Your task to perform on an android device: Add usb-a to usb-b to the cart on amazon Image 0: 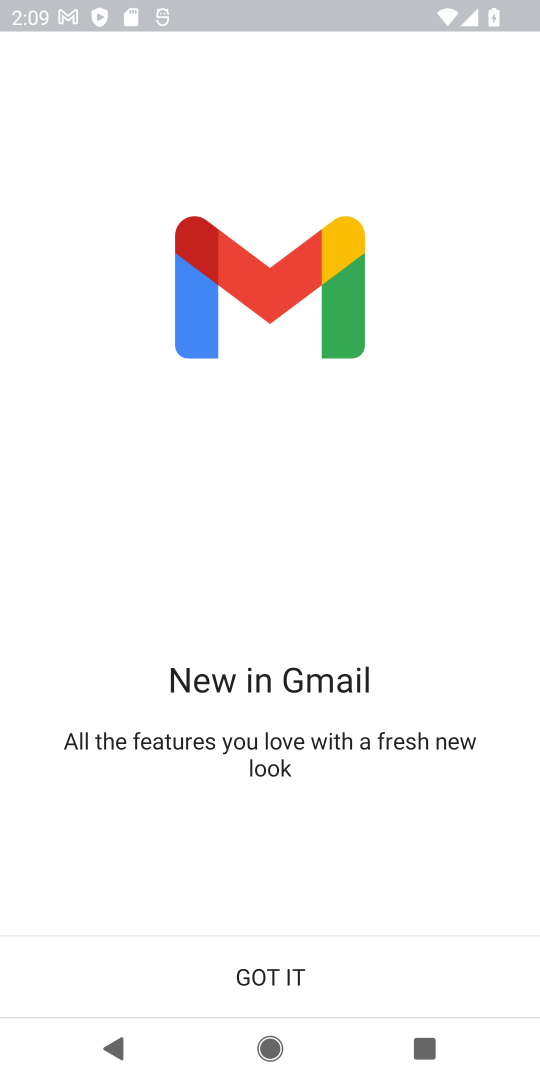
Step 0: press home button
Your task to perform on an android device: Add usb-a to usb-b to the cart on amazon Image 1: 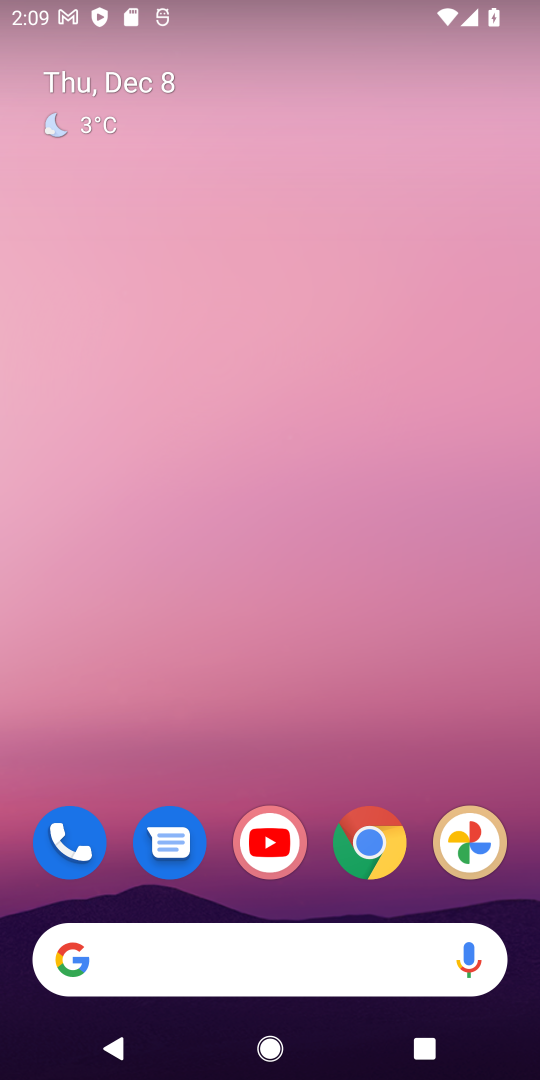
Step 1: drag from (230, 859) to (207, 484)
Your task to perform on an android device: Add usb-a to usb-b to the cart on amazon Image 2: 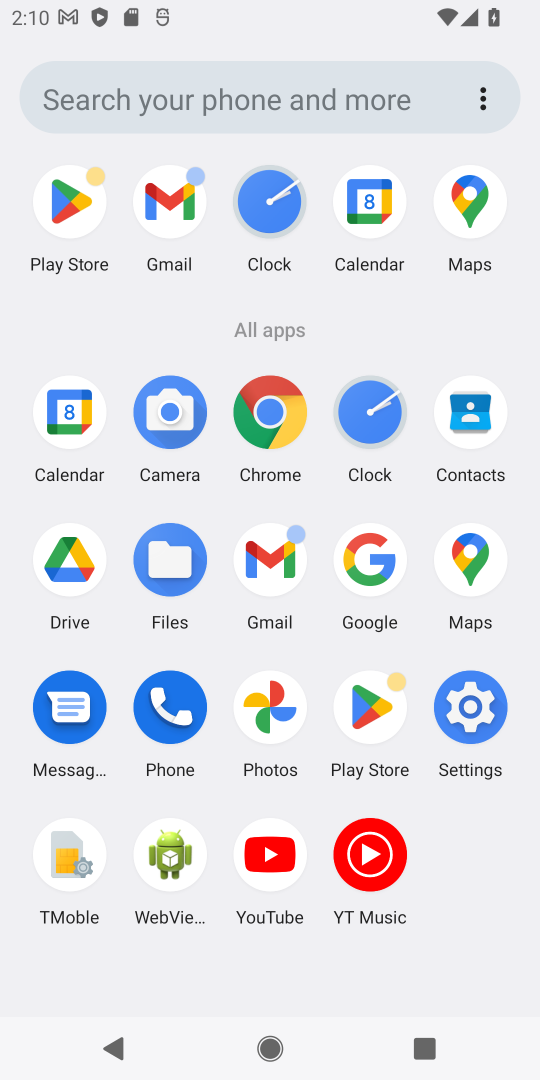
Step 2: click (364, 560)
Your task to perform on an android device: Add usb-a to usb-b to the cart on amazon Image 3: 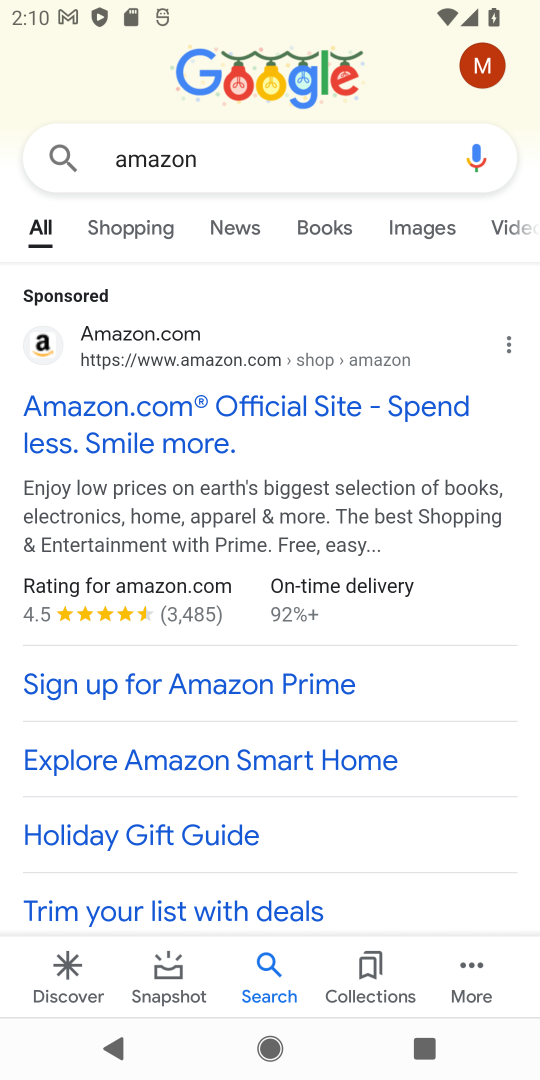
Step 3: click (179, 164)
Your task to perform on an android device: Add usb-a to usb-b to the cart on amazon Image 4: 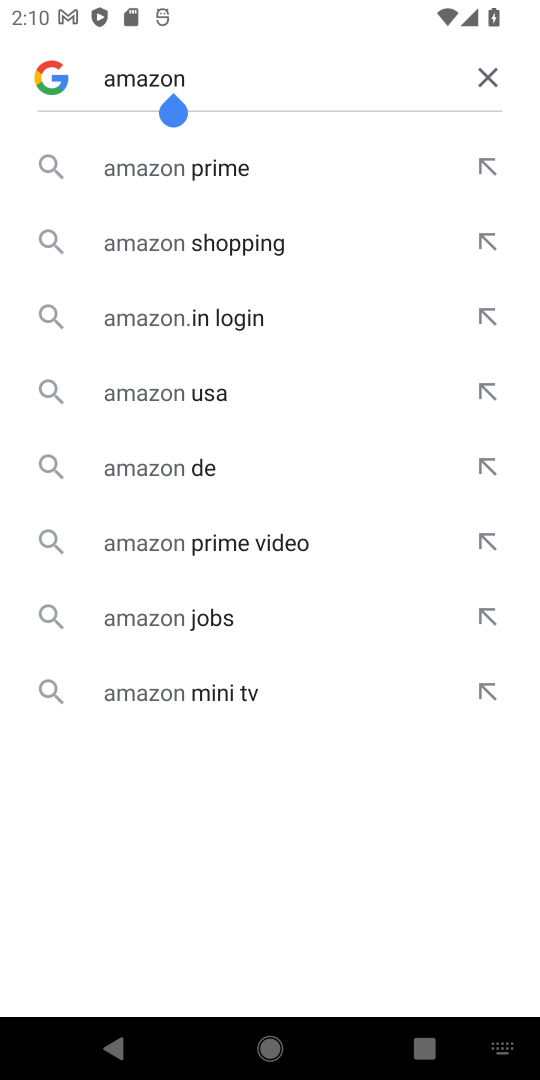
Step 4: click (485, 79)
Your task to perform on an android device: Add usb-a to usb-b to the cart on amazon Image 5: 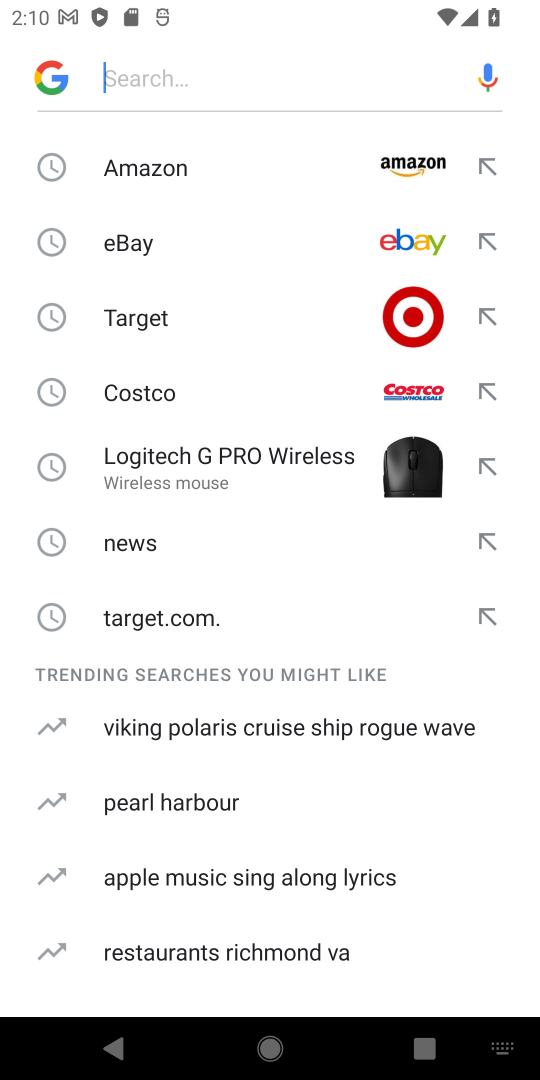
Step 5: click (133, 166)
Your task to perform on an android device: Add usb-a to usb-b to the cart on amazon Image 6: 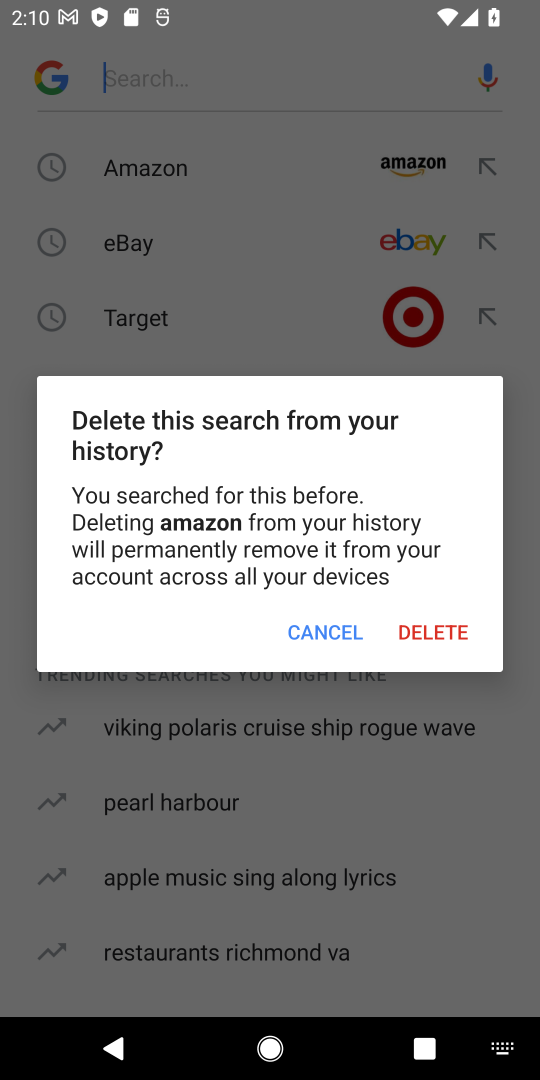
Step 6: click (324, 629)
Your task to perform on an android device: Add usb-a to usb-b to the cart on amazon Image 7: 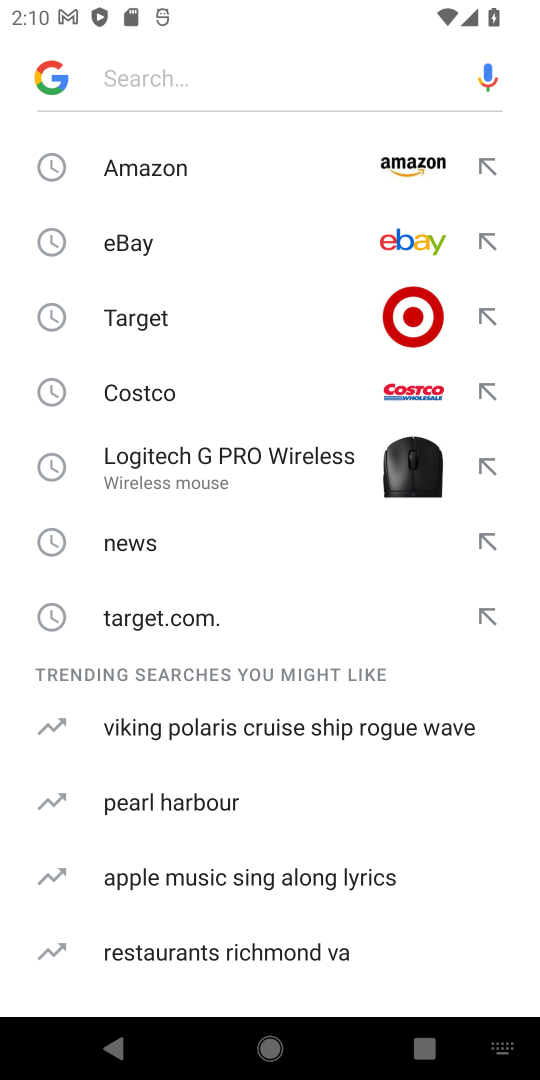
Step 7: click (410, 161)
Your task to perform on an android device: Add usb-a to usb-b to the cart on amazon Image 8: 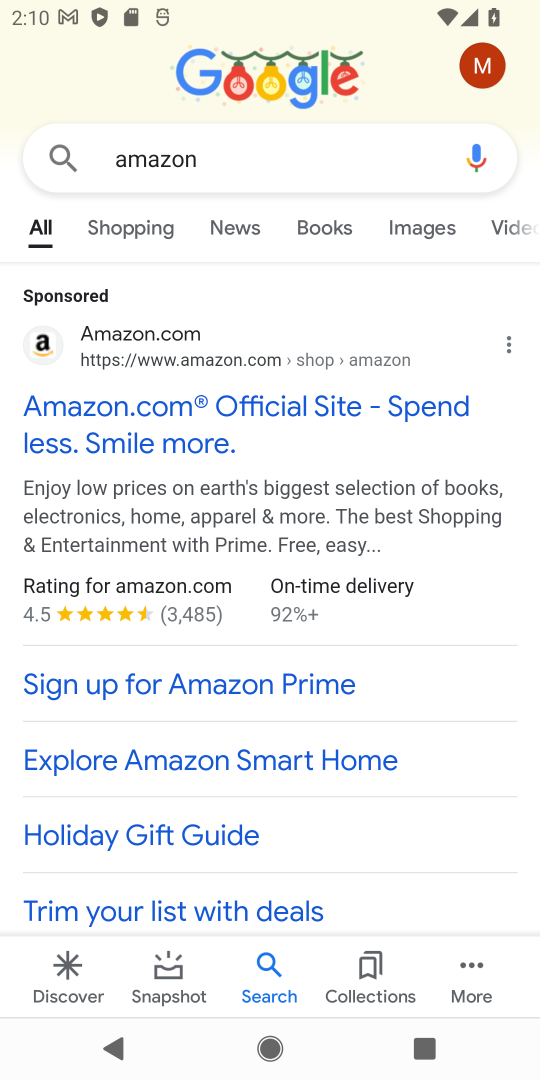
Step 8: click (155, 418)
Your task to perform on an android device: Add usb-a to usb-b to the cart on amazon Image 9: 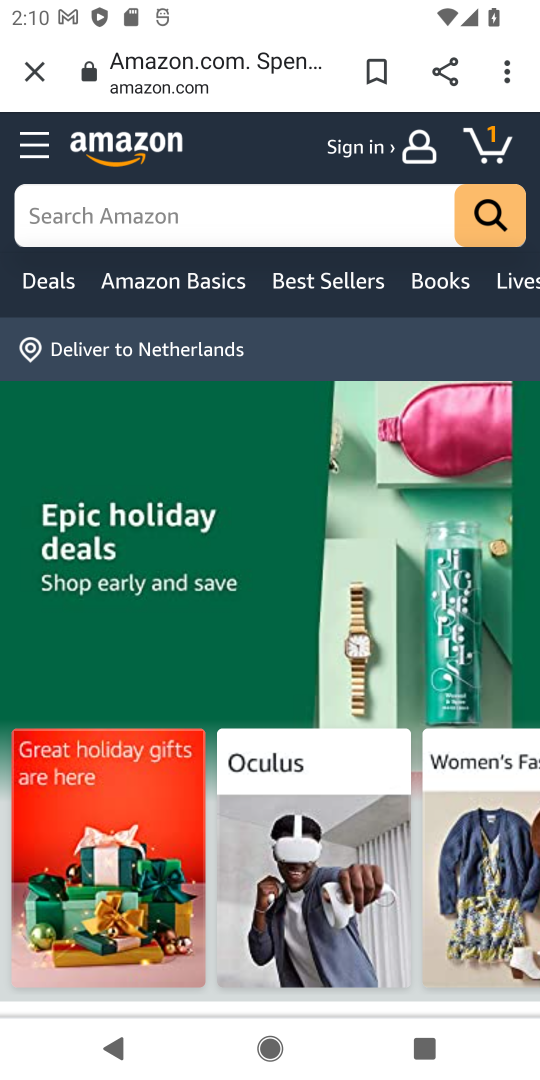
Step 9: click (113, 218)
Your task to perform on an android device: Add usb-a to usb-b to the cart on amazon Image 10: 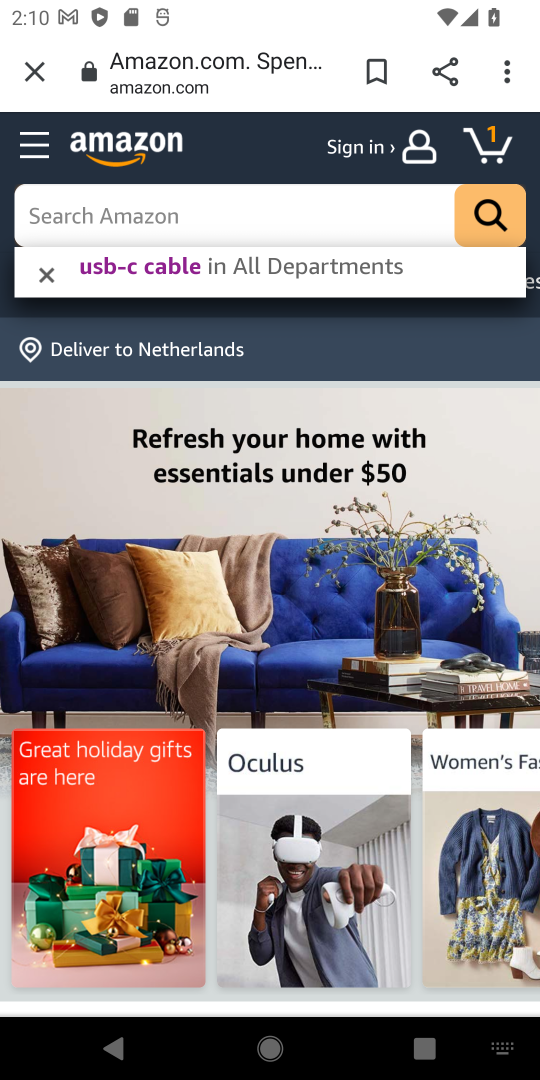
Step 10: click (98, 201)
Your task to perform on an android device: Add usb-a to usb-b to the cart on amazon Image 11: 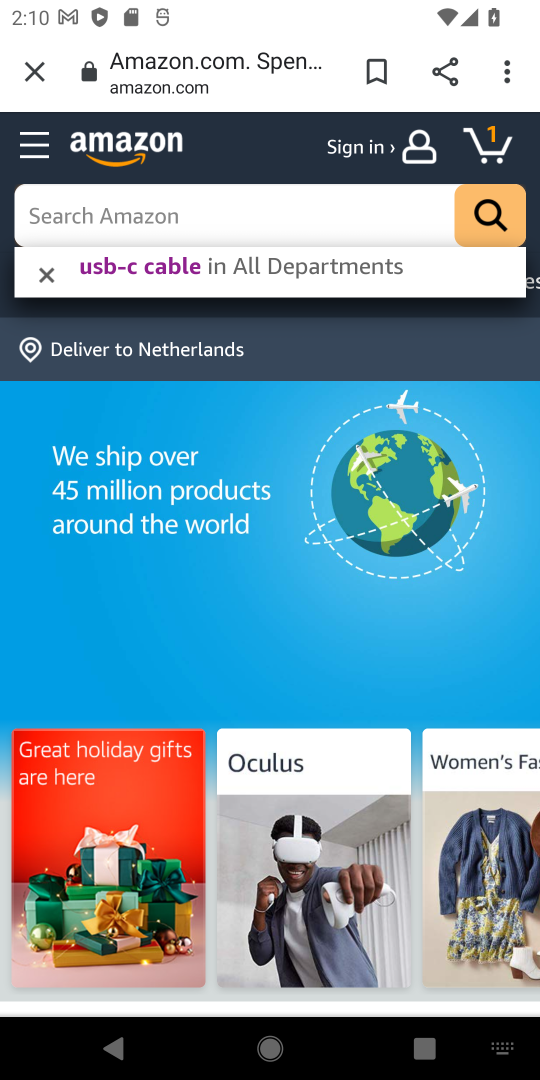
Step 11: type "usb-a to usb-b"
Your task to perform on an android device: Add usb-a to usb-b to the cart on amazon Image 12: 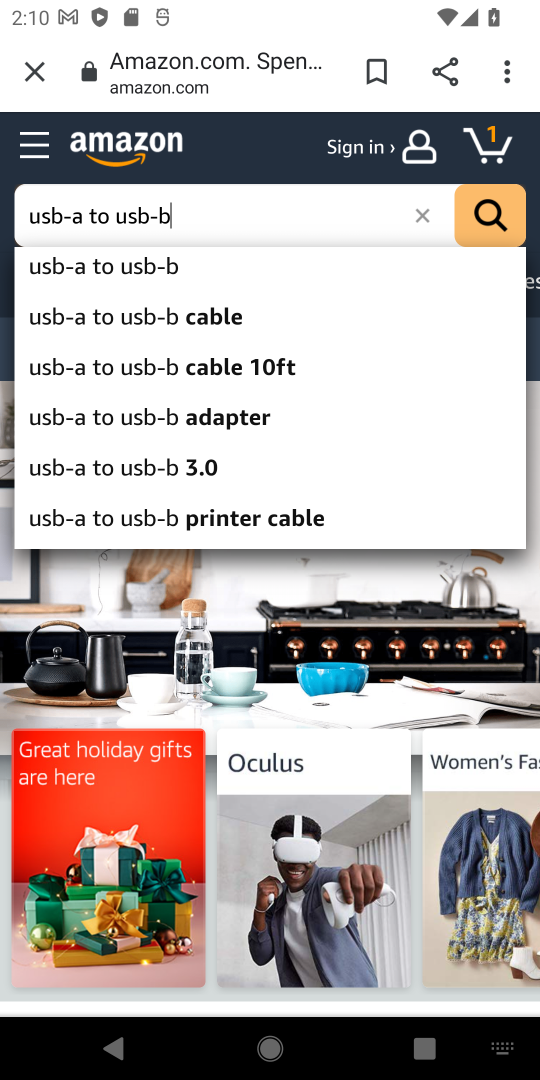
Step 12: click (116, 265)
Your task to perform on an android device: Add usb-a to usb-b to the cart on amazon Image 13: 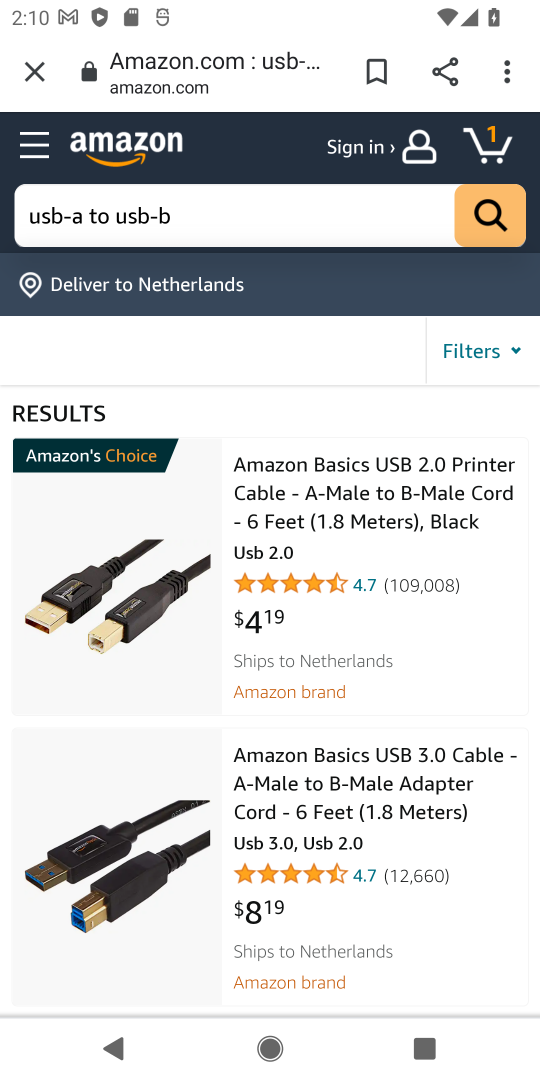
Step 13: click (344, 505)
Your task to perform on an android device: Add usb-a to usb-b to the cart on amazon Image 14: 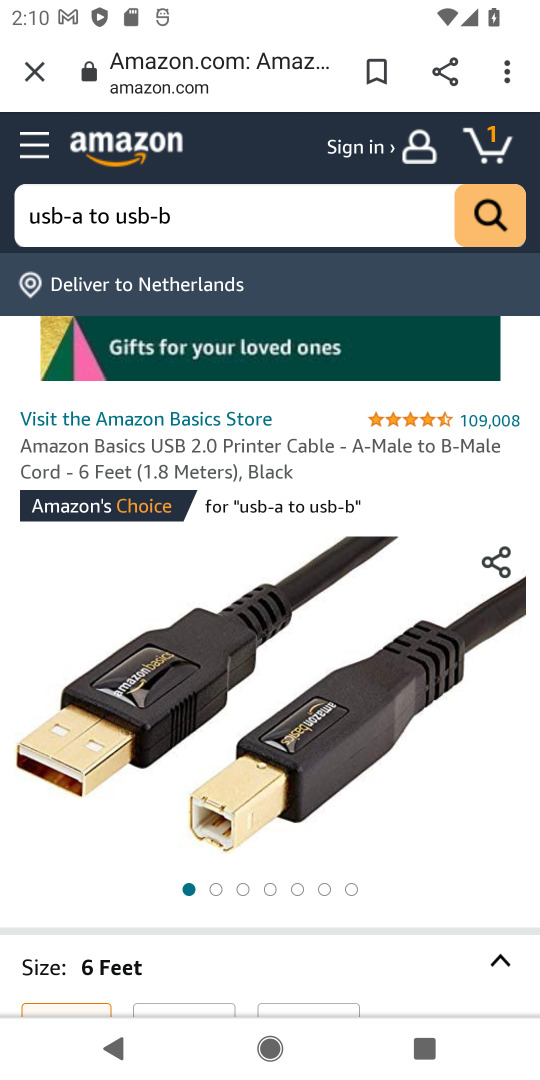
Step 14: drag from (391, 891) to (388, 411)
Your task to perform on an android device: Add usb-a to usb-b to the cart on amazon Image 15: 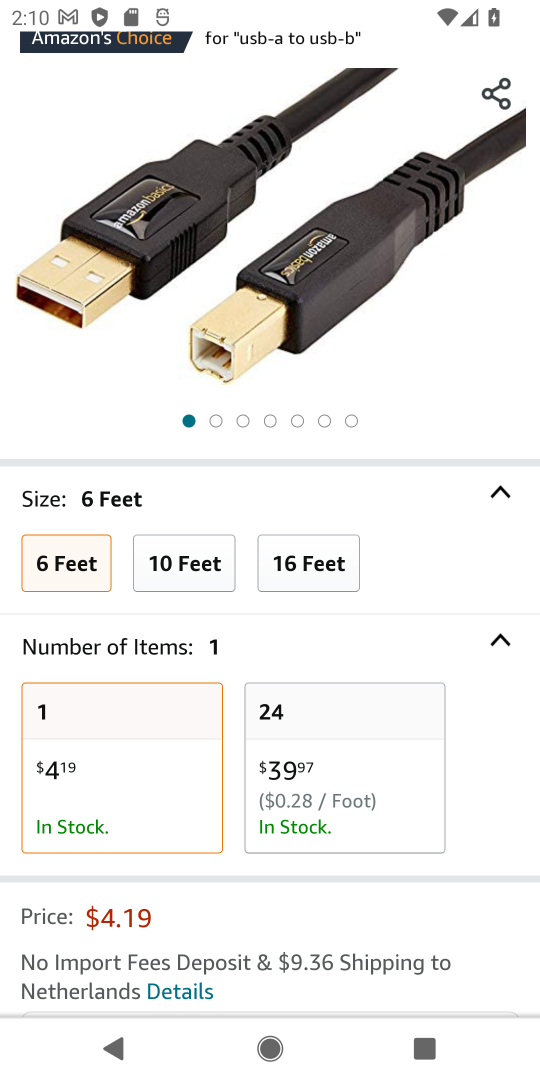
Step 15: drag from (330, 941) to (306, 285)
Your task to perform on an android device: Add usb-a to usb-b to the cart on amazon Image 16: 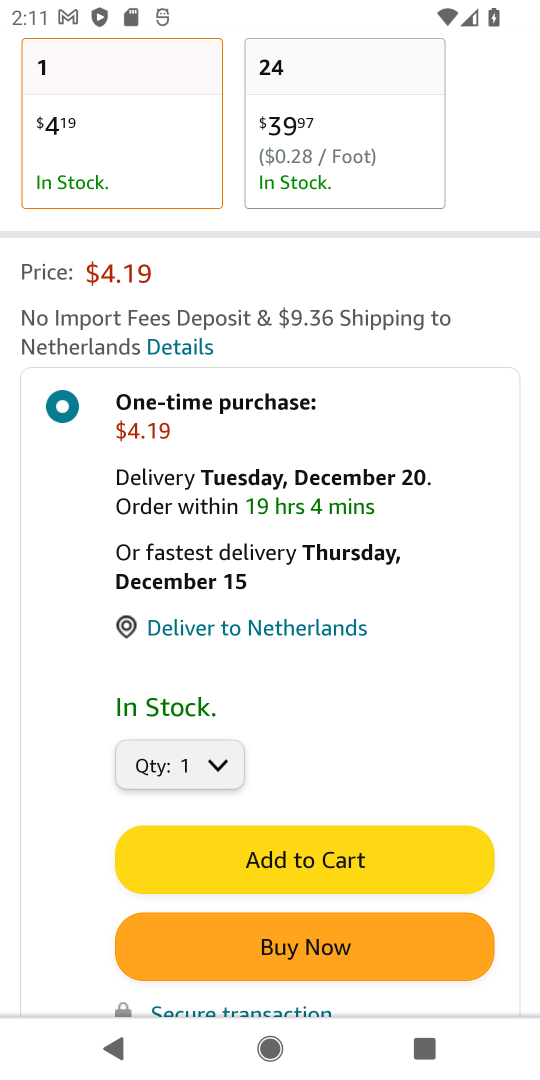
Step 16: click (323, 854)
Your task to perform on an android device: Add usb-a to usb-b to the cart on amazon Image 17: 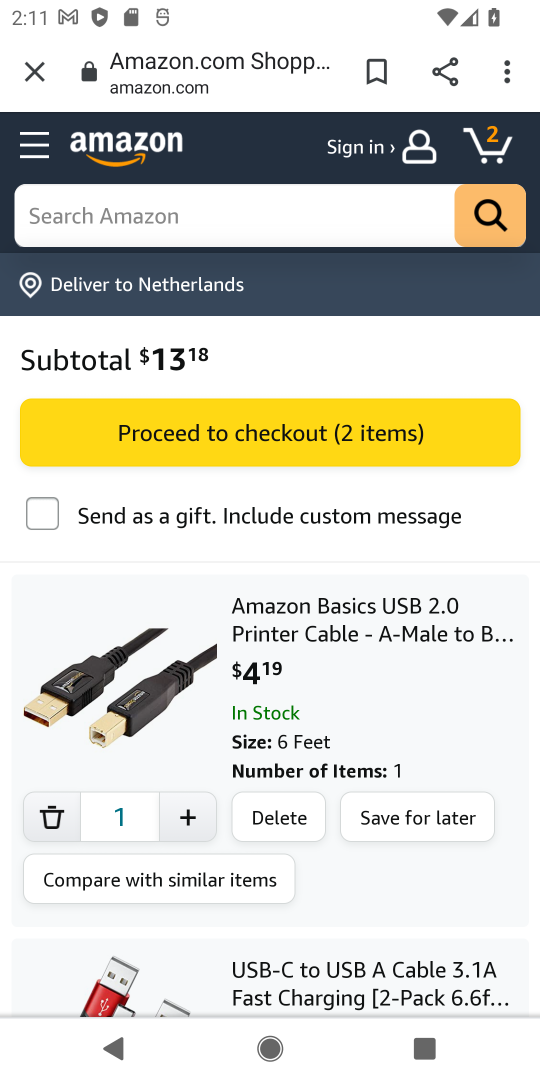
Step 17: task complete